Your task to perform on an android device: Do I have any events today? Image 0: 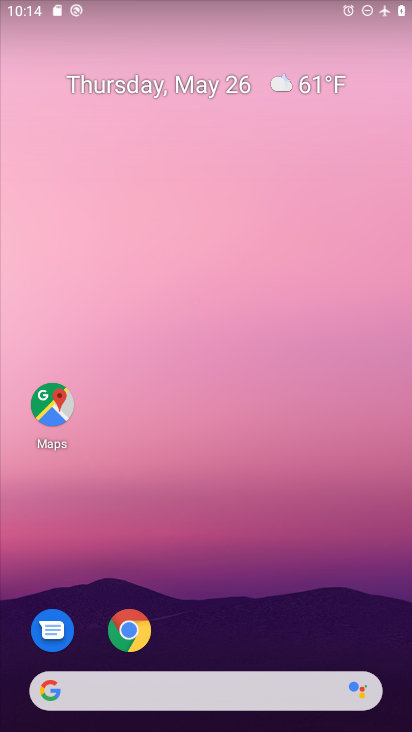
Step 0: drag from (209, 666) to (107, 126)
Your task to perform on an android device: Do I have any events today? Image 1: 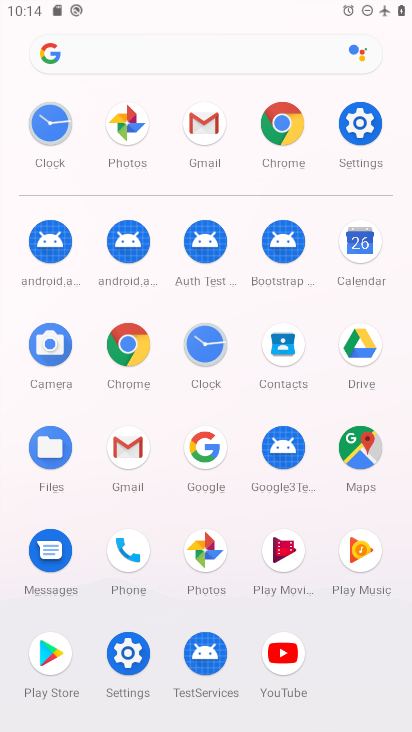
Step 1: click (356, 253)
Your task to perform on an android device: Do I have any events today? Image 2: 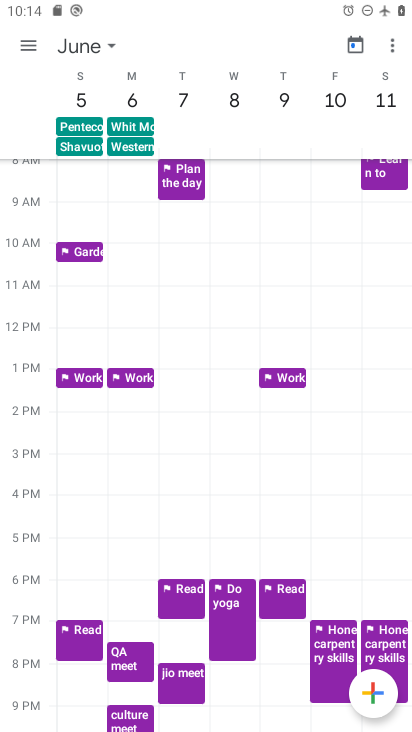
Step 2: click (33, 53)
Your task to perform on an android device: Do I have any events today? Image 3: 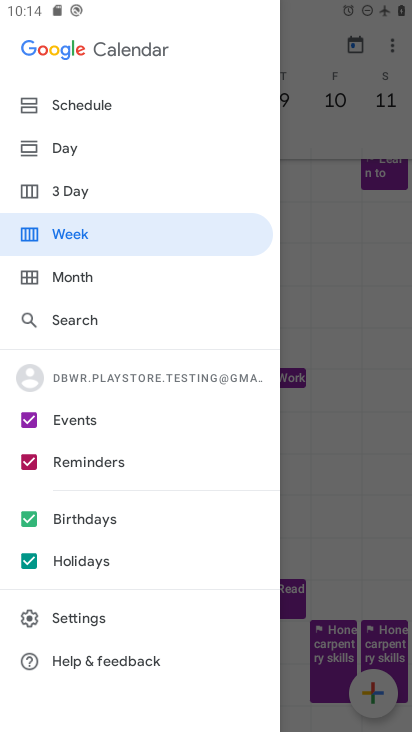
Step 3: click (63, 141)
Your task to perform on an android device: Do I have any events today? Image 4: 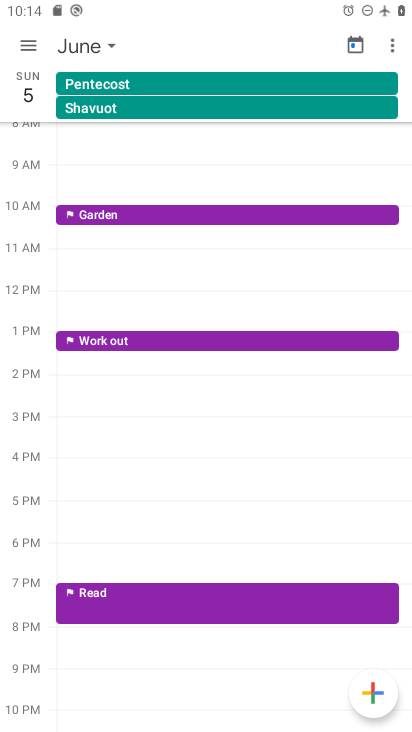
Step 4: task complete